Your task to perform on an android device: Show the shopping cart on costco. Add logitech g pro to the cart on costco, then select checkout. Image 0: 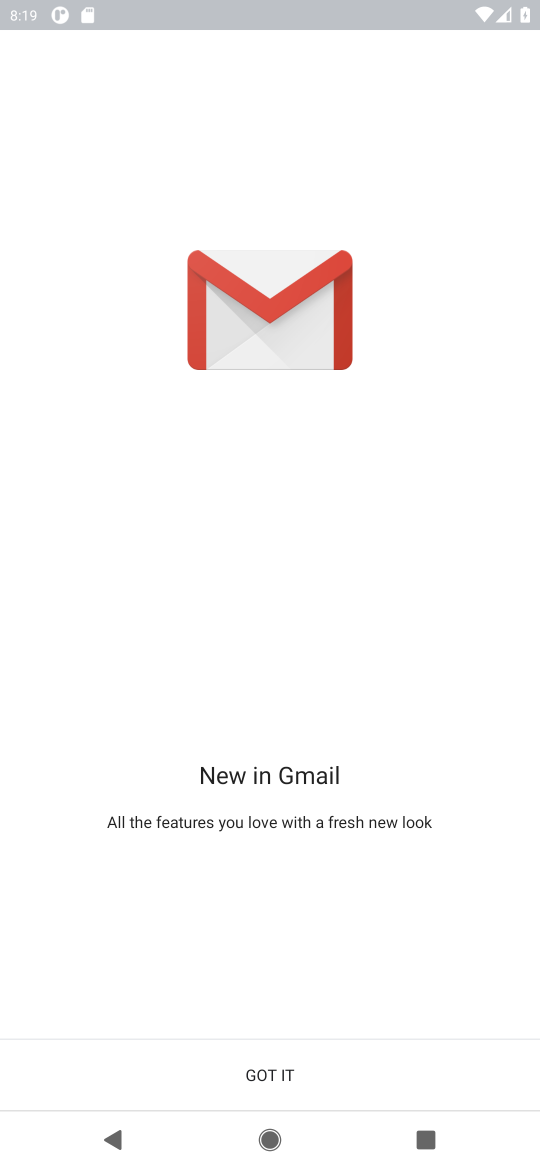
Step 0: press home button
Your task to perform on an android device: Show the shopping cart on costco. Add logitech g pro to the cart on costco, then select checkout. Image 1: 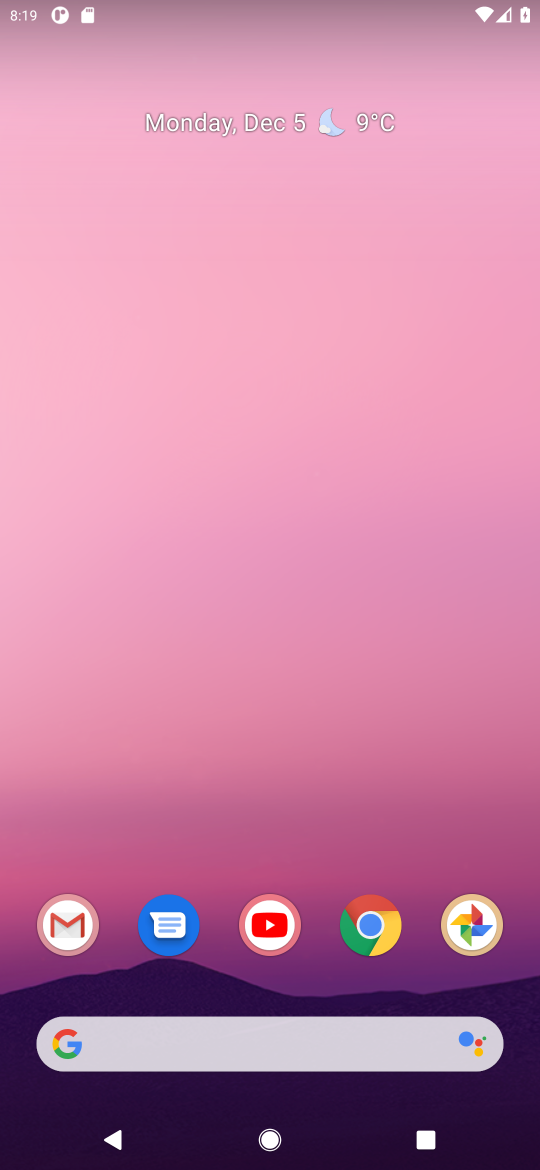
Step 1: click (373, 933)
Your task to perform on an android device: Show the shopping cart on costco. Add logitech g pro to the cart on costco, then select checkout. Image 2: 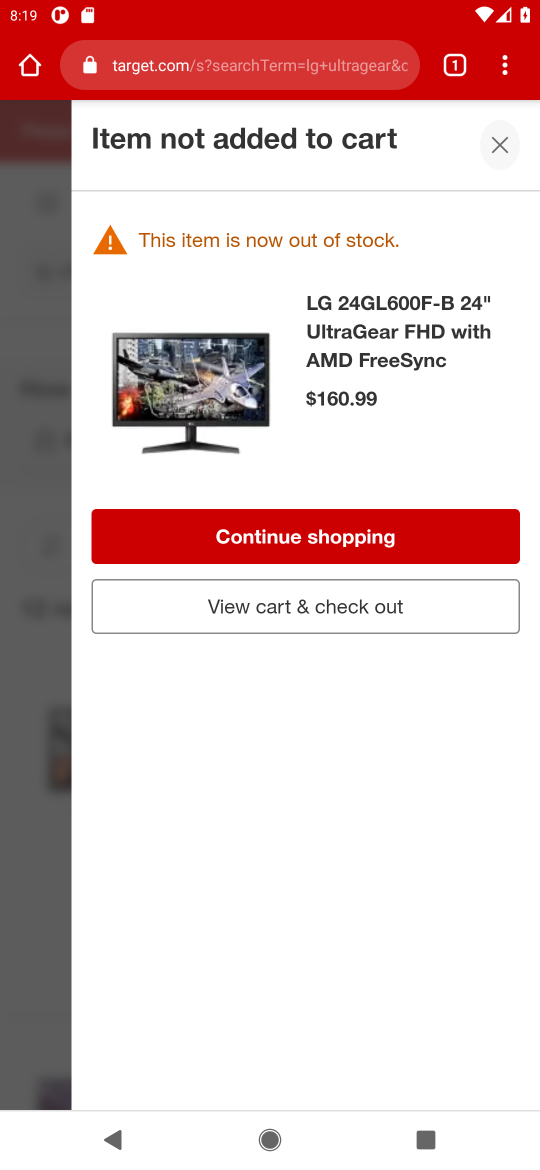
Step 2: click (220, 70)
Your task to perform on an android device: Show the shopping cart on costco. Add logitech g pro to the cart on costco, then select checkout. Image 3: 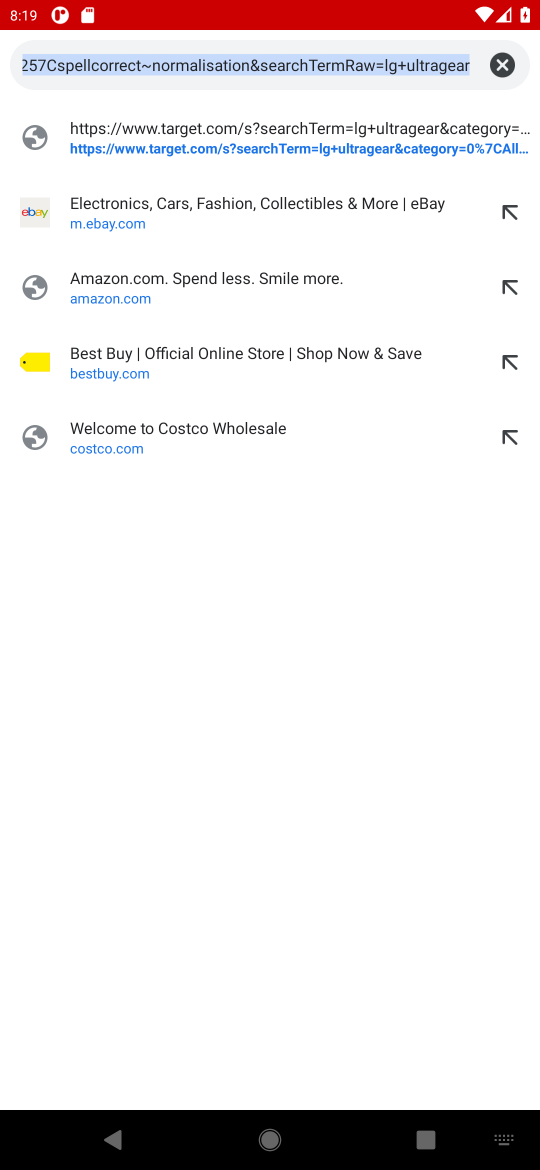
Step 3: click (77, 438)
Your task to perform on an android device: Show the shopping cart on costco. Add logitech g pro to the cart on costco, then select checkout. Image 4: 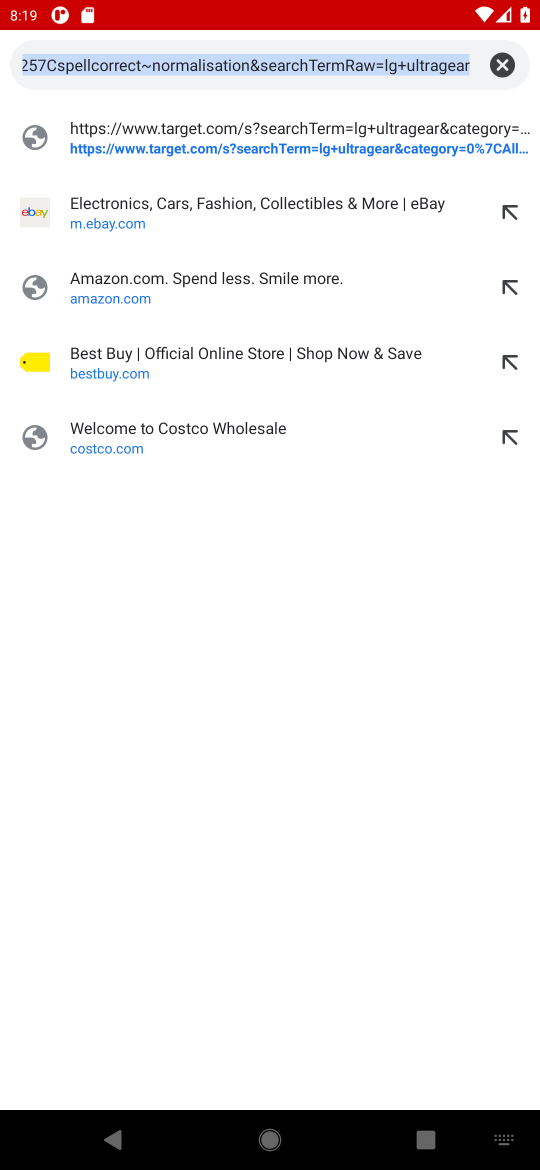
Step 4: click (83, 442)
Your task to perform on an android device: Show the shopping cart on costco. Add logitech g pro to the cart on costco, then select checkout. Image 5: 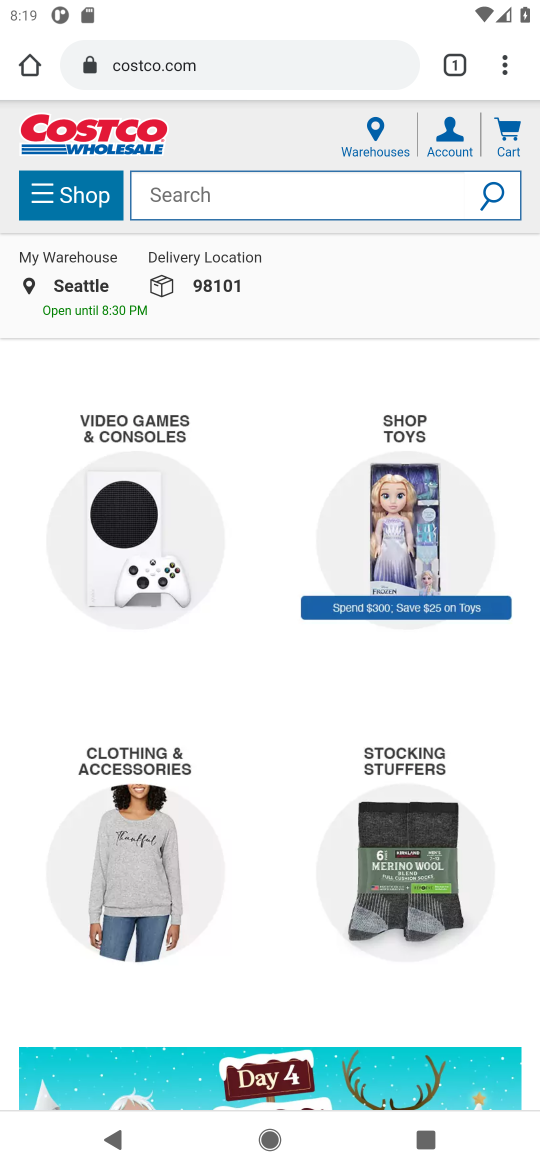
Step 5: click (505, 137)
Your task to perform on an android device: Show the shopping cart on costco. Add logitech g pro to the cart on costco, then select checkout. Image 6: 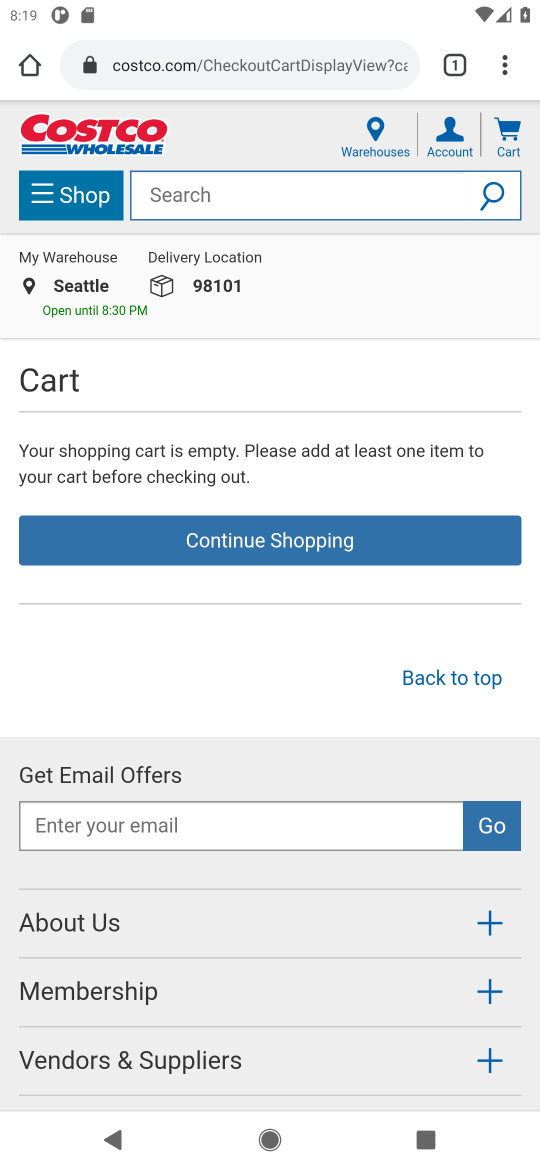
Step 6: click (207, 198)
Your task to perform on an android device: Show the shopping cart on costco. Add logitech g pro to the cart on costco, then select checkout. Image 7: 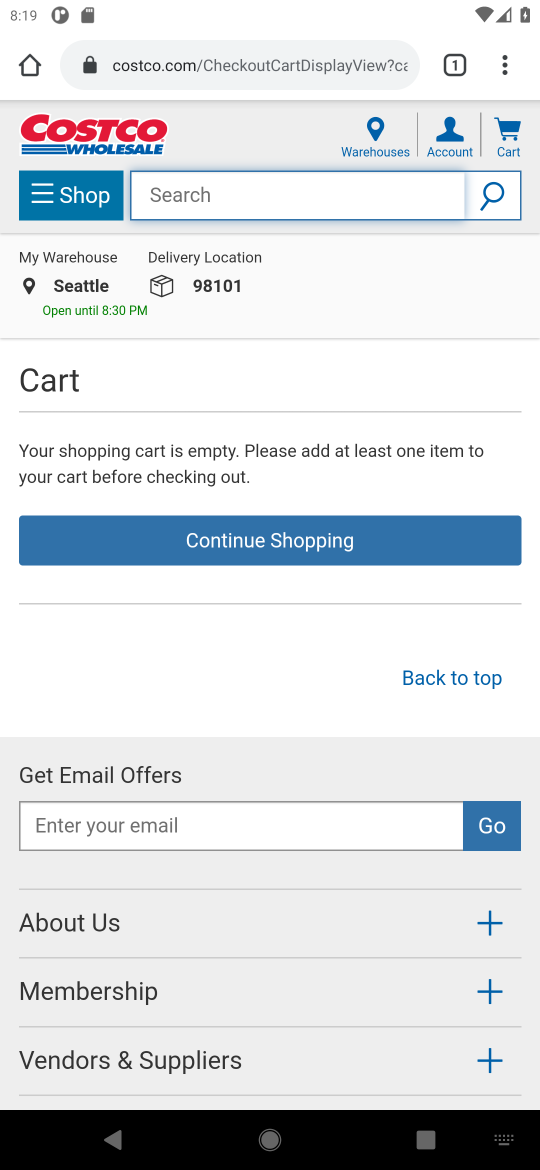
Step 7: type "logitech g pro"
Your task to perform on an android device: Show the shopping cart on costco. Add logitech g pro to the cart on costco, then select checkout. Image 8: 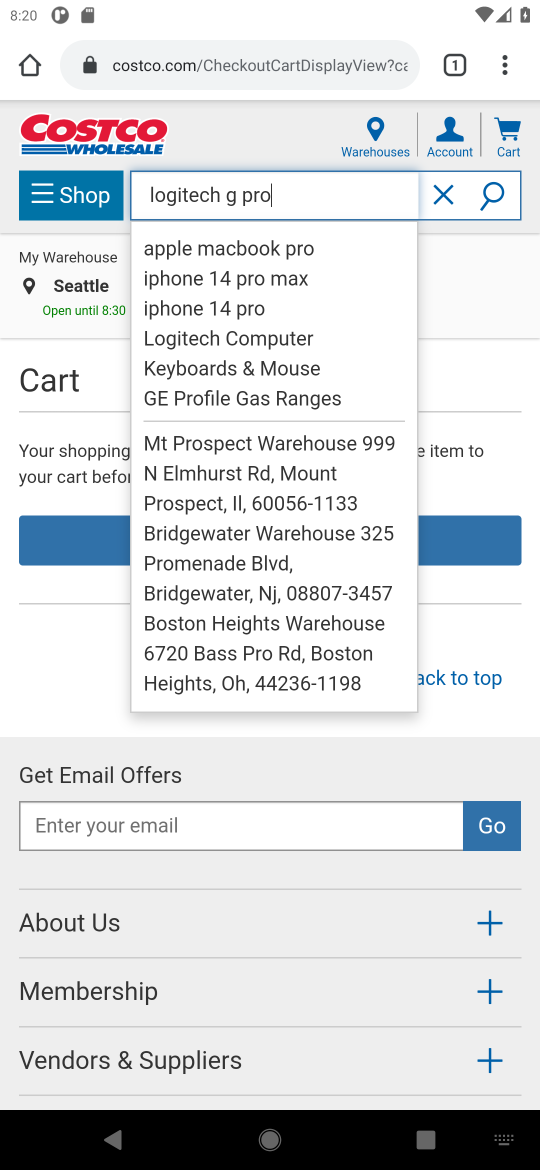
Step 8: click (486, 205)
Your task to perform on an android device: Show the shopping cart on costco. Add logitech g pro to the cart on costco, then select checkout. Image 9: 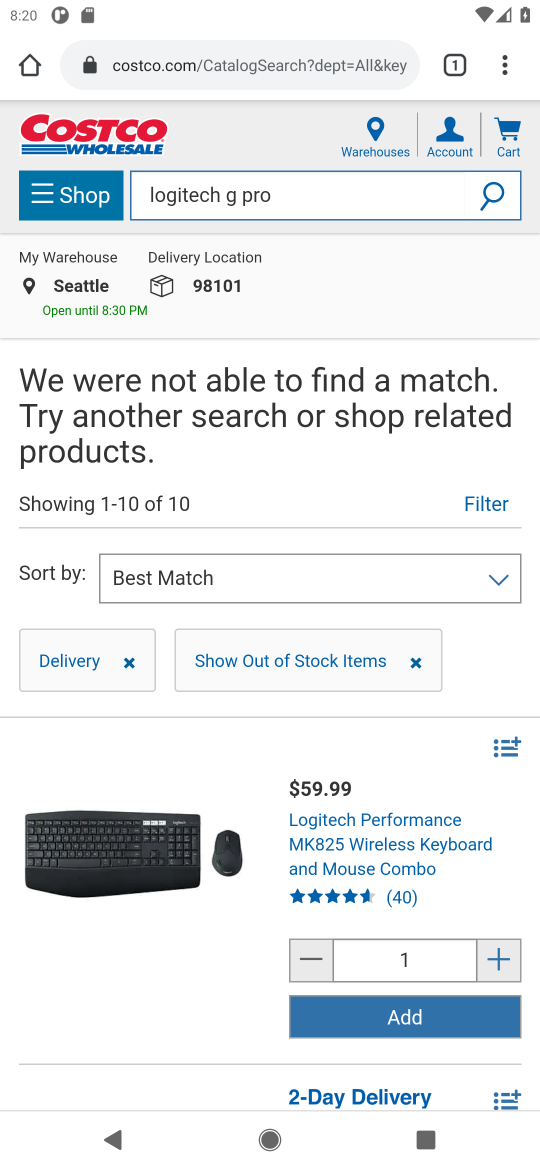
Step 9: task complete